Your task to perform on an android device: Open eBay Image 0: 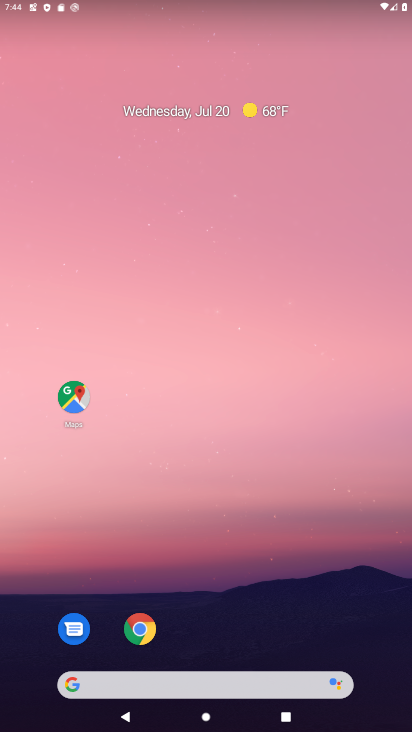
Step 0: drag from (349, 599) to (337, 107)
Your task to perform on an android device: Open eBay Image 1: 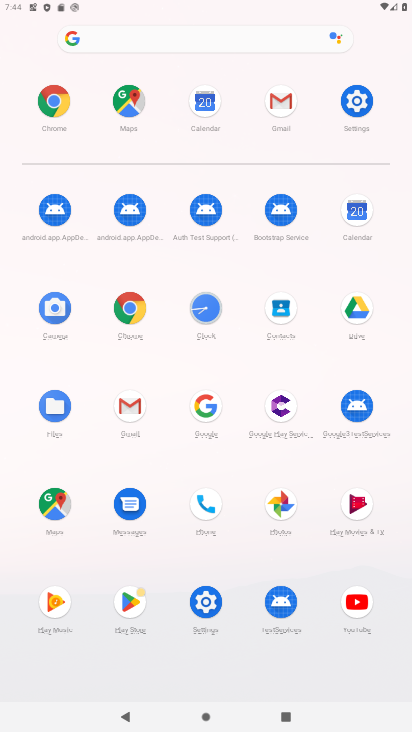
Step 1: click (136, 316)
Your task to perform on an android device: Open eBay Image 2: 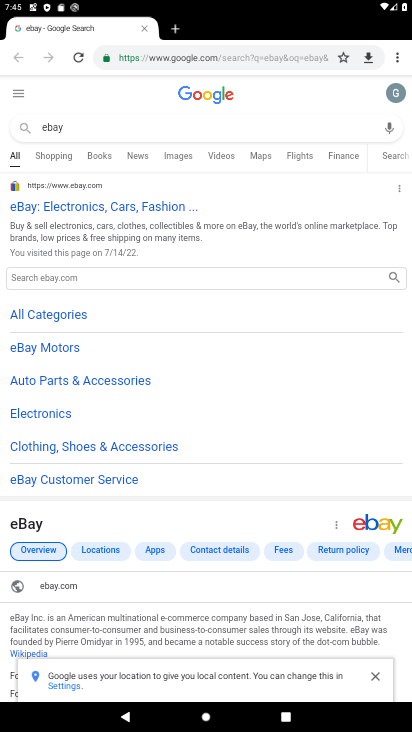
Step 2: task complete